Your task to perform on an android device: Go to sound settings Image 0: 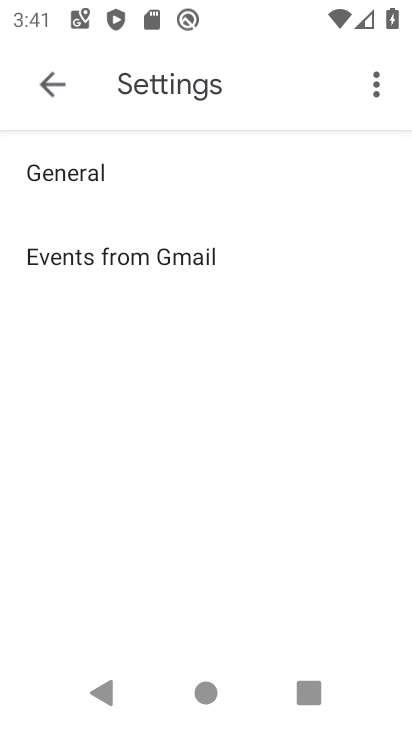
Step 0: press home button
Your task to perform on an android device: Go to sound settings Image 1: 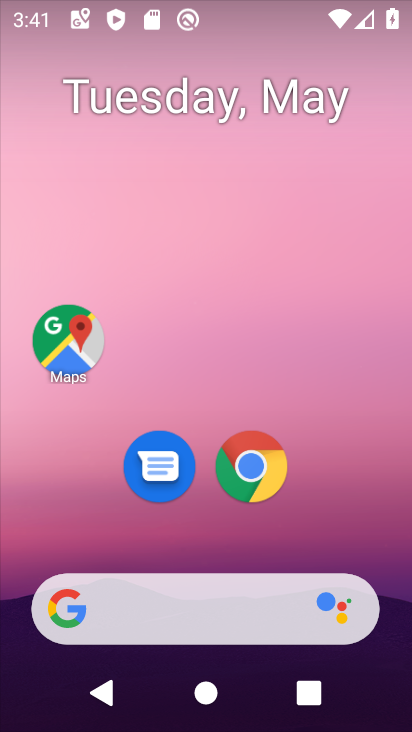
Step 1: click (170, 541)
Your task to perform on an android device: Go to sound settings Image 2: 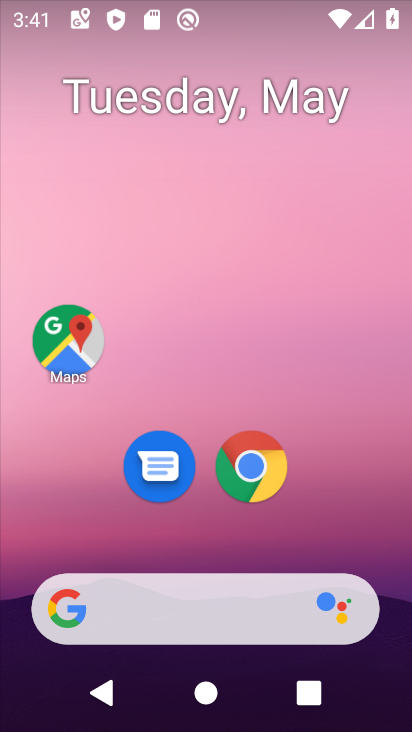
Step 2: drag from (143, 721) to (130, 108)
Your task to perform on an android device: Go to sound settings Image 3: 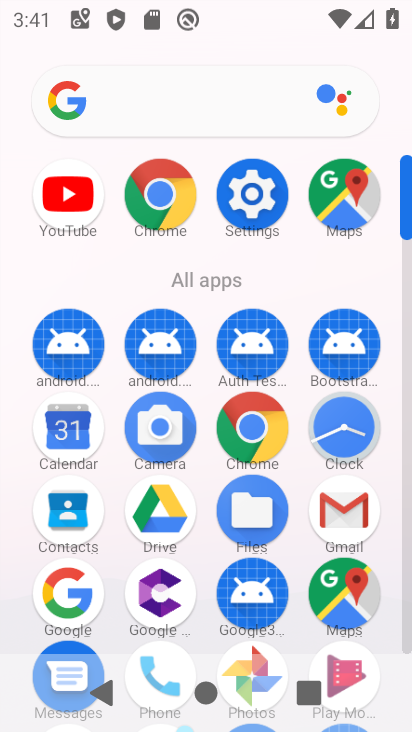
Step 3: click (237, 201)
Your task to perform on an android device: Go to sound settings Image 4: 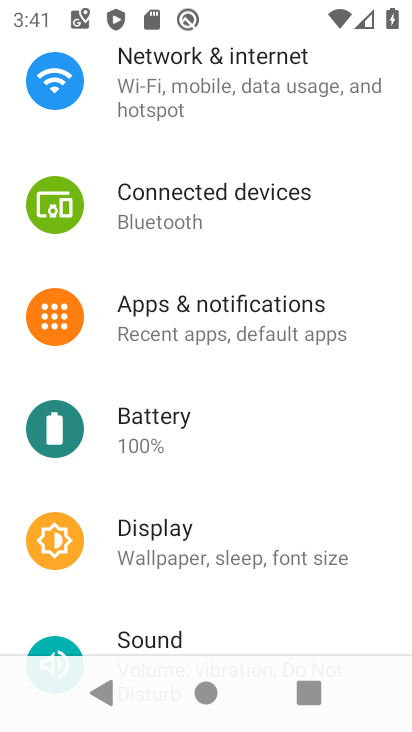
Step 4: click (151, 635)
Your task to perform on an android device: Go to sound settings Image 5: 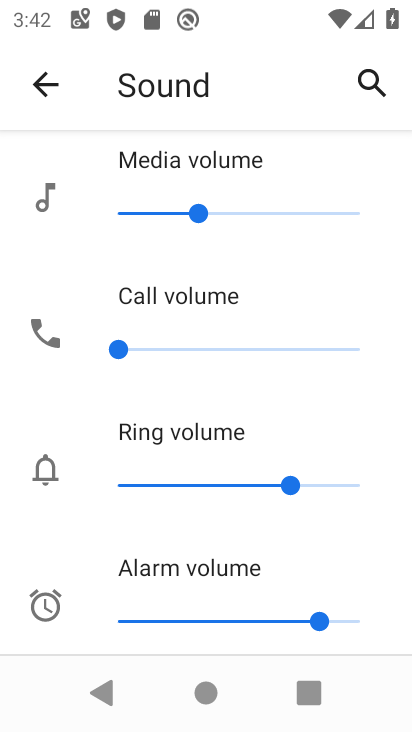
Step 5: task complete